Your task to perform on an android device: Go to calendar. Show me events next week Image 0: 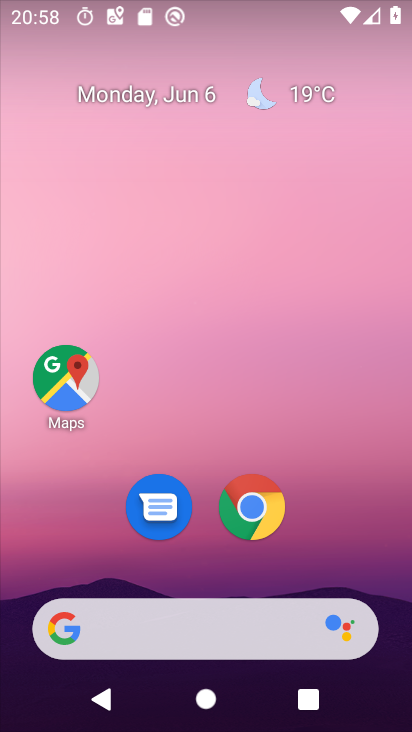
Step 0: press home button
Your task to perform on an android device: Go to calendar. Show me events next week Image 1: 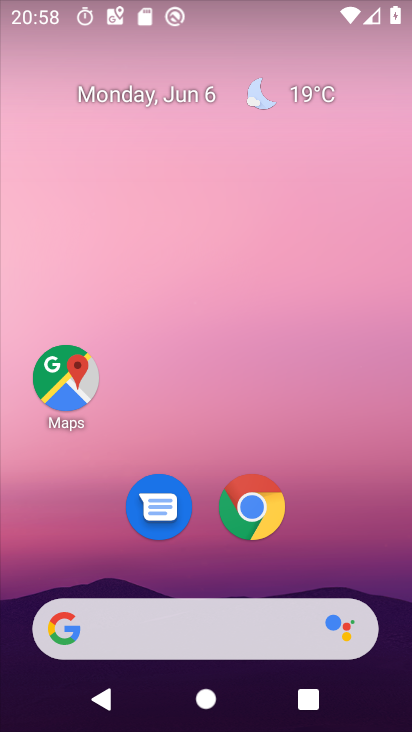
Step 1: drag from (364, 549) to (368, 16)
Your task to perform on an android device: Go to calendar. Show me events next week Image 2: 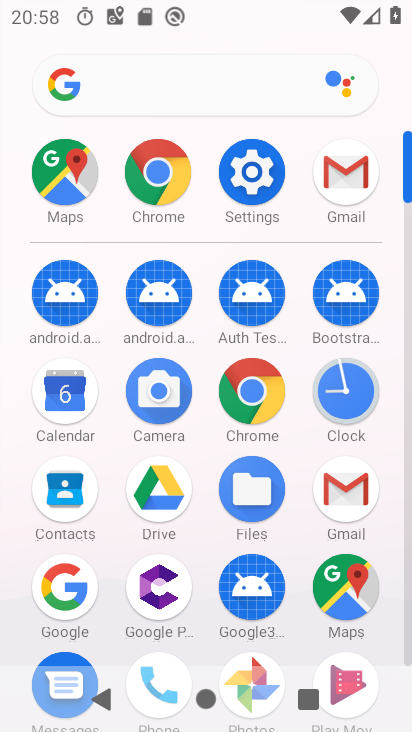
Step 2: click (48, 378)
Your task to perform on an android device: Go to calendar. Show me events next week Image 3: 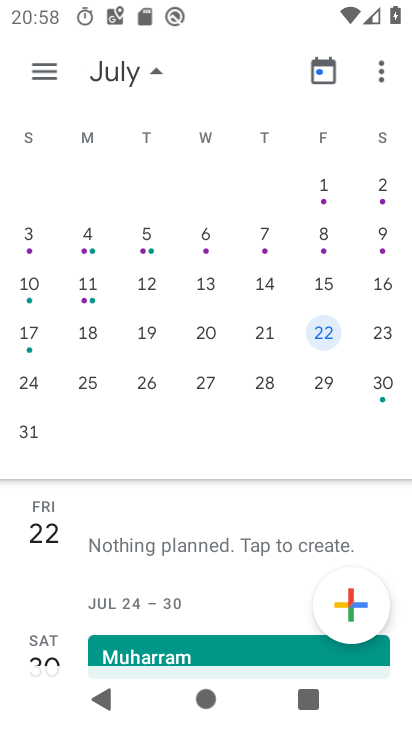
Step 3: drag from (82, 308) to (375, 225)
Your task to perform on an android device: Go to calendar. Show me events next week Image 4: 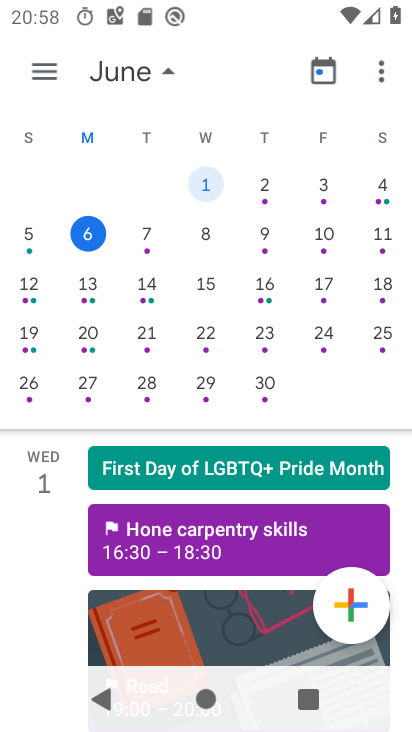
Step 4: click (158, 287)
Your task to perform on an android device: Go to calendar. Show me events next week Image 5: 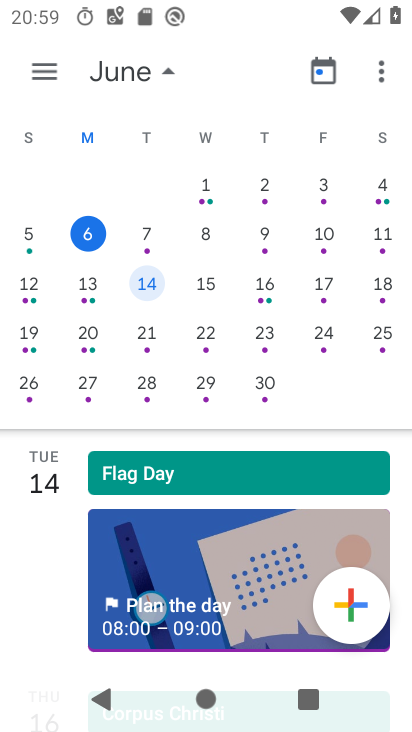
Step 5: task complete